Your task to perform on an android device: Go to Wikipedia Image 0: 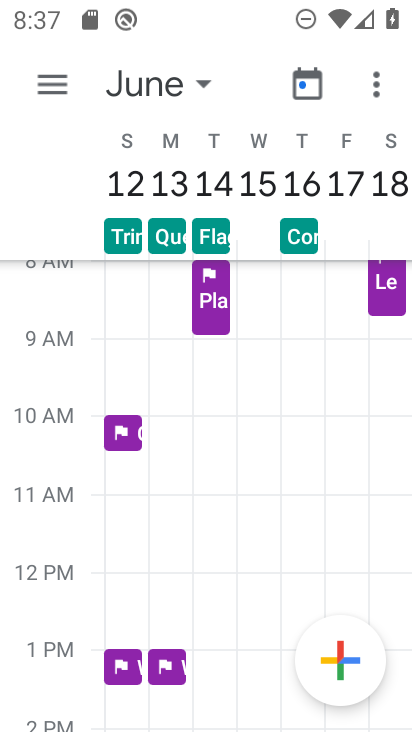
Step 0: press back button
Your task to perform on an android device: Go to Wikipedia Image 1: 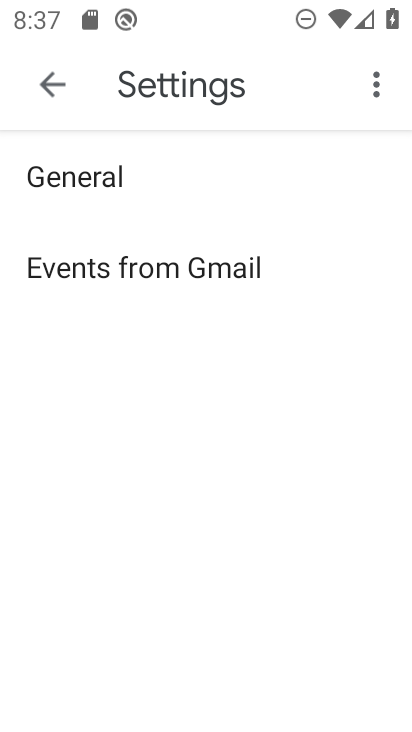
Step 1: press back button
Your task to perform on an android device: Go to Wikipedia Image 2: 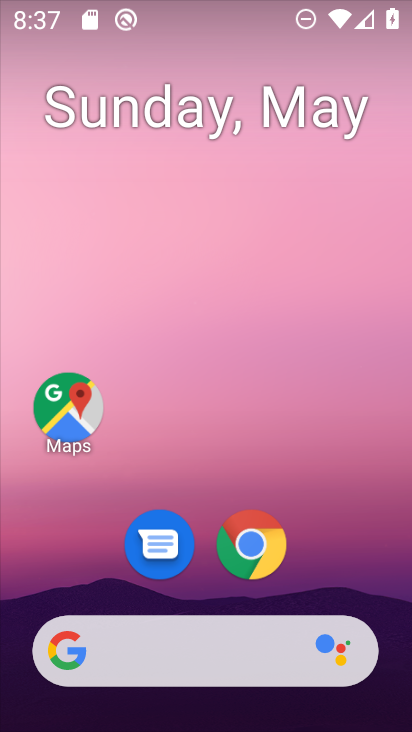
Step 2: drag from (345, 548) to (284, 2)
Your task to perform on an android device: Go to Wikipedia Image 3: 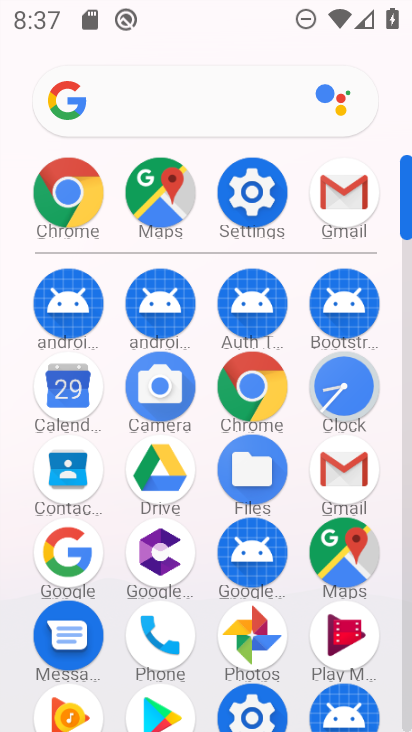
Step 3: click (68, 194)
Your task to perform on an android device: Go to Wikipedia Image 4: 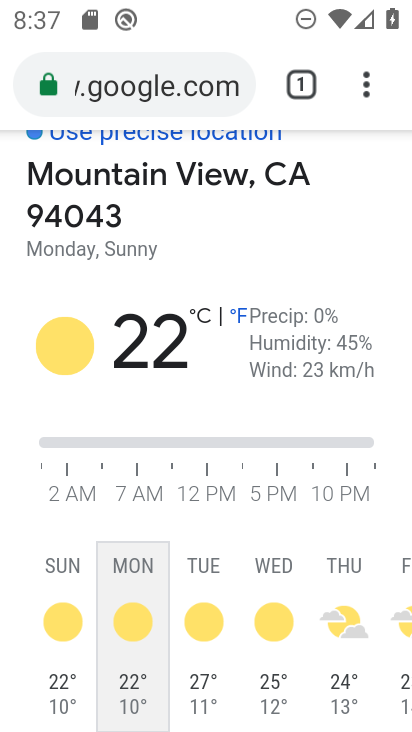
Step 4: click (136, 76)
Your task to perform on an android device: Go to Wikipedia Image 5: 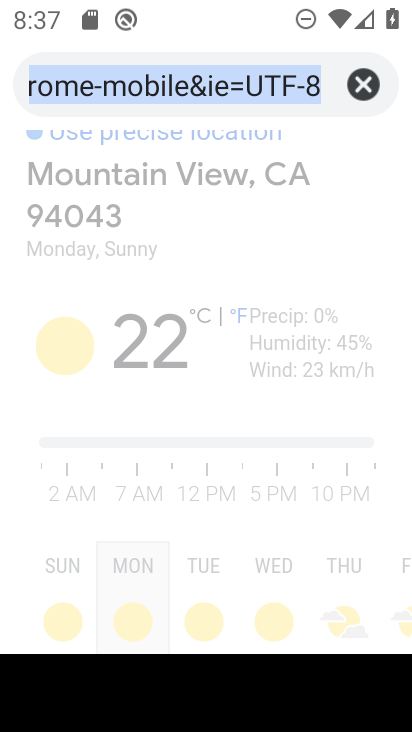
Step 5: click (368, 83)
Your task to perform on an android device: Go to Wikipedia Image 6: 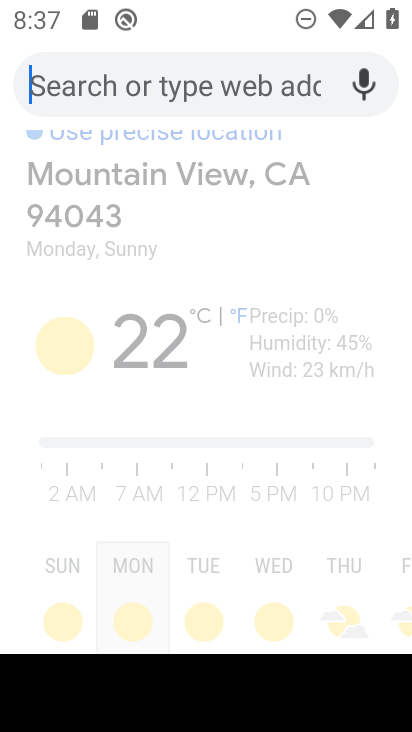
Step 6: type "Wikipedia"
Your task to perform on an android device: Go to Wikipedia Image 7: 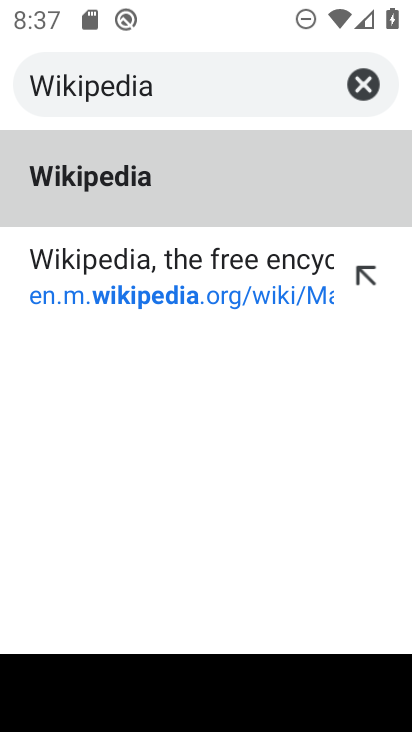
Step 7: click (105, 252)
Your task to perform on an android device: Go to Wikipedia Image 8: 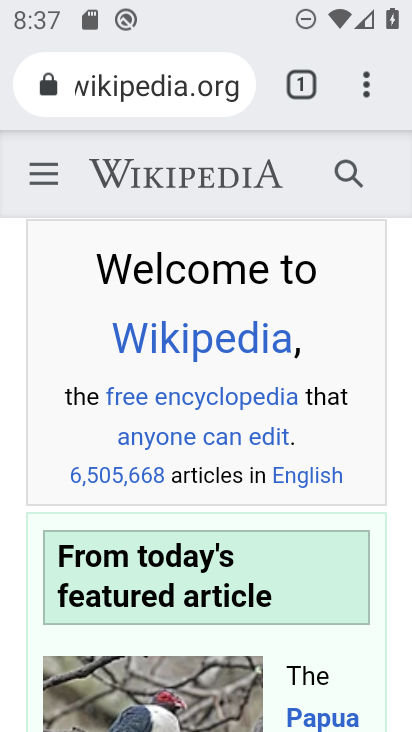
Step 8: task complete